Your task to perform on an android device: change the clock display to analog Image 0: 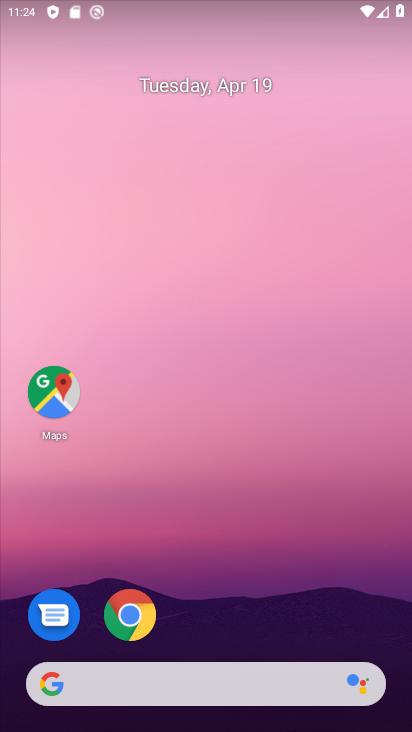
Step 0: drag from (200, 519) to (304, 119)
Your task to perform on an android device: change the clock display to analog Image 1: 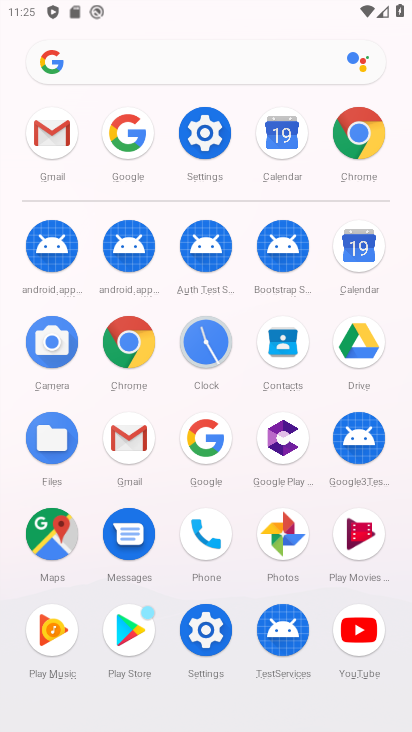
Step 1: click (207, 339)
Your task to perform on an android device: change the clock display to analog Image 2: 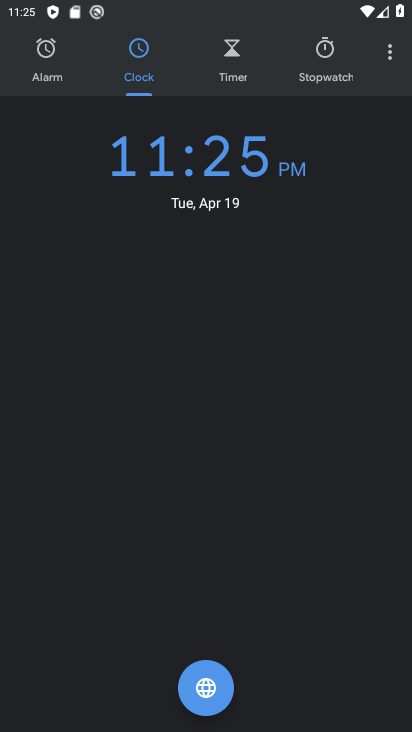
Step 2: click (384, 48)
Your task to perform on an android device: change the clock display to analog Image 3: 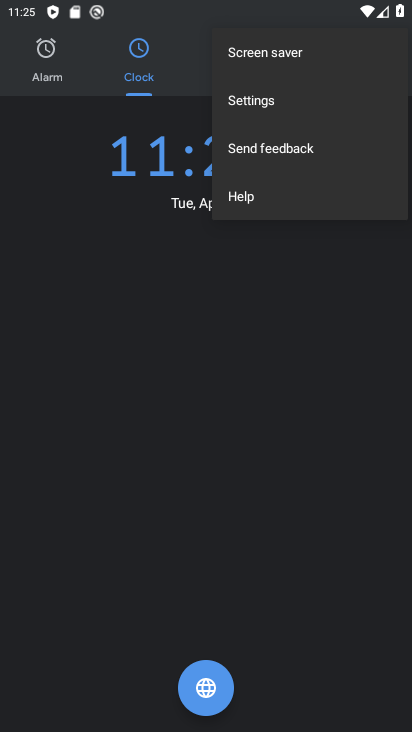
Step 3: click (289, 107)
Your task to perform on an android device: change the clock display to analog Image 4: 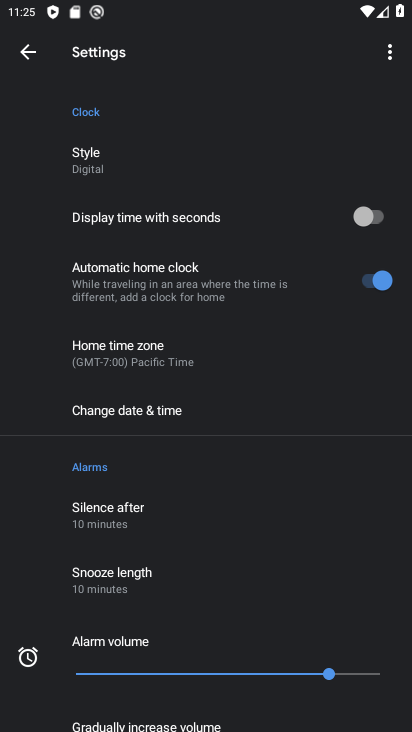
Step 4: click (173, 159)
Your task to perform on an android device: change the clock display to analog Image 5: 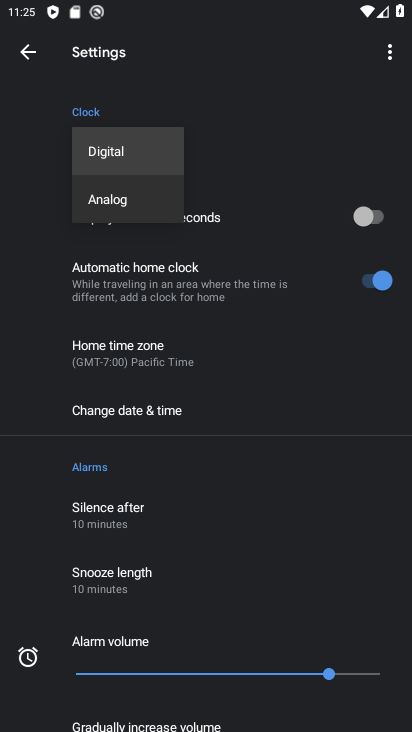
Step 5: click (138, 199)
Your task to perform on an android device: change the clock display to analog Image 6: 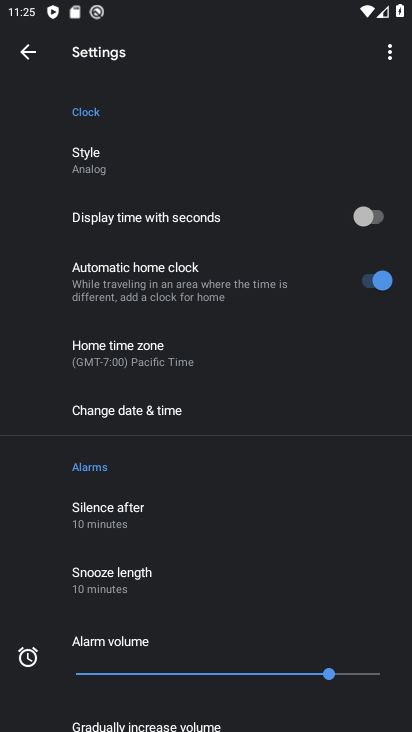
Step 6: task complete